Your task to perform on an android device: Go to notification settings Image 0: 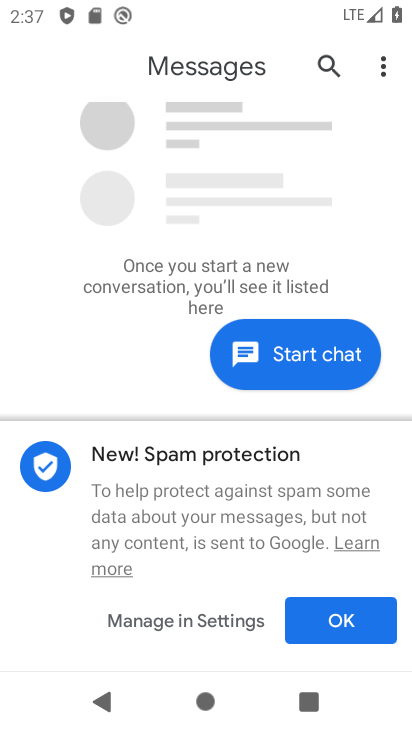
Step 0: press home button
Your task to perform on an android device: Go to notification settings Image 1: 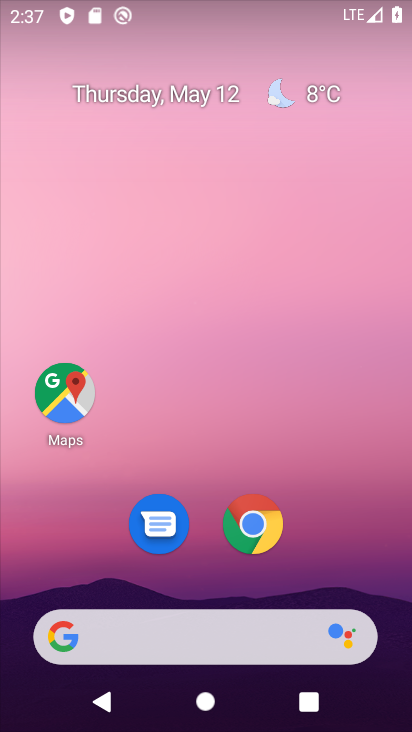
Step 1: drag from (205, 456) to (243, 20)
Your task to perform on an android device: Go to notification settings Image 2: 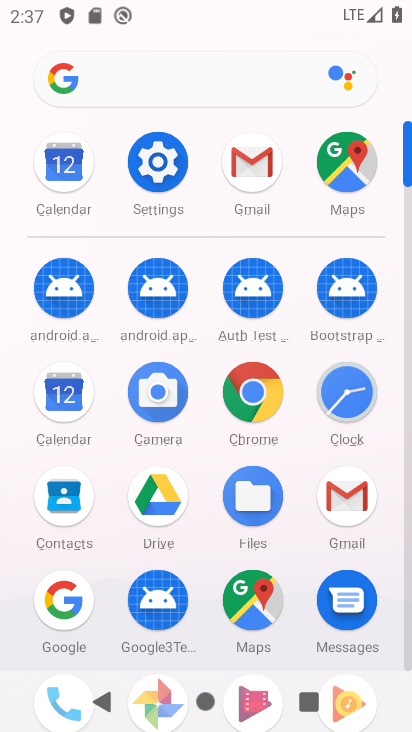
Step 2: click (162, 160)
Your task to perform on an android device: Go to notification settings Image 3: 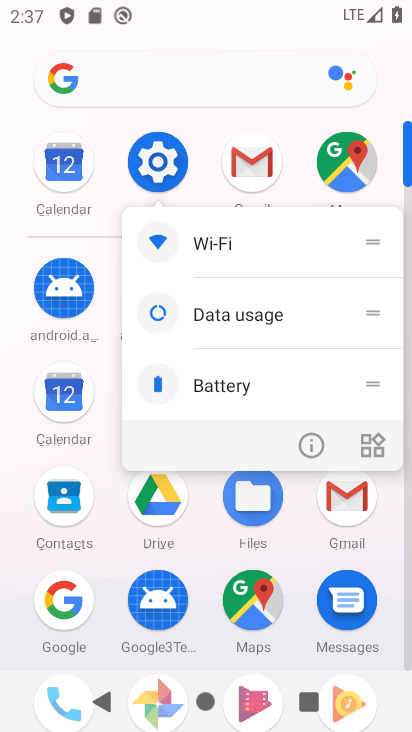
Step 3: click (162, 158)
Your task to perform on an android device: Go to notification settings Image 4: 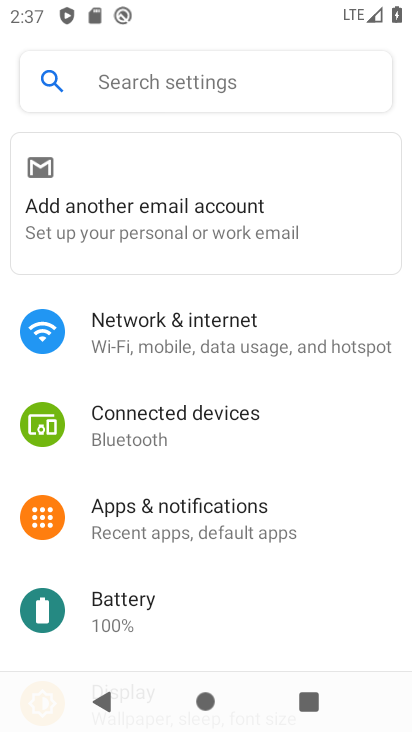
Step 4: click (197, 515)
Your task to perform on an android device: Go to notification settings Image 5: 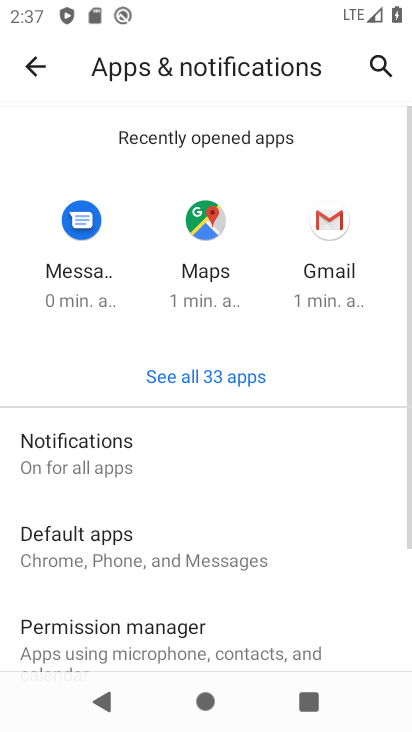
Step 5: click (114, 454)
Your task to perform on an android device: Go to notification settings Image 6: 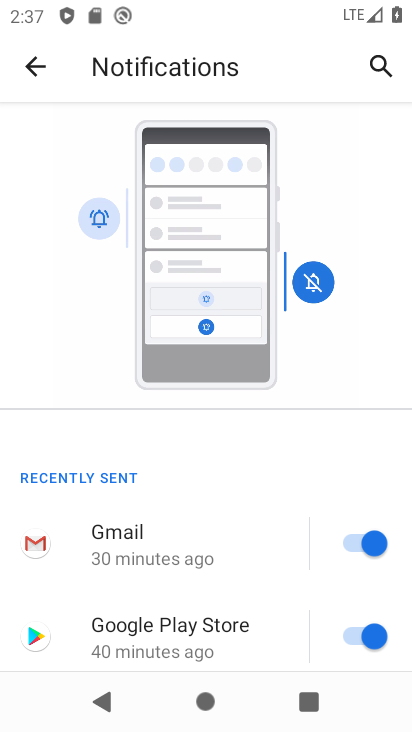
Step 6: task complete